Your task to perform on an android device: Is it going to rain tomorrow? Image 0: 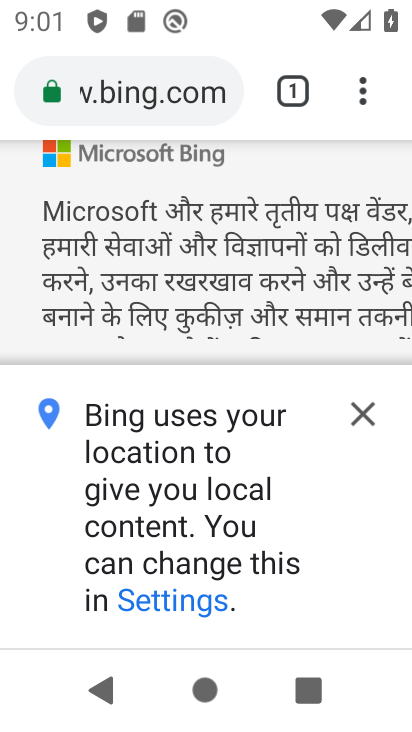
Step 0: press home button
Your task to perform on an android device: Is it going to rain tomorrow? Image 1: 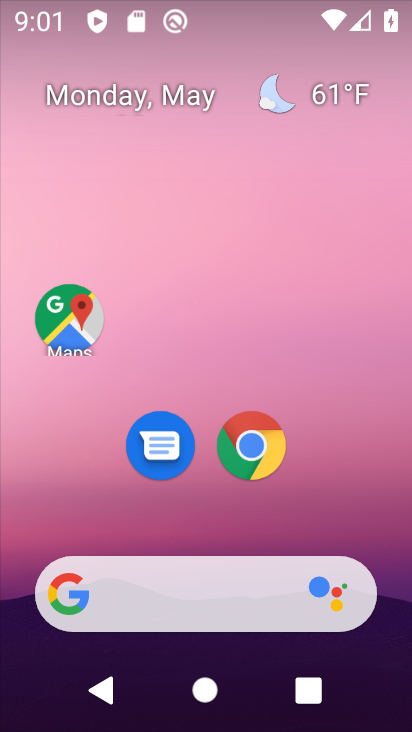
Step 1: click (190, 610)
Your task to perform on an android device: Is it going to rain tomorrow? Image 2: 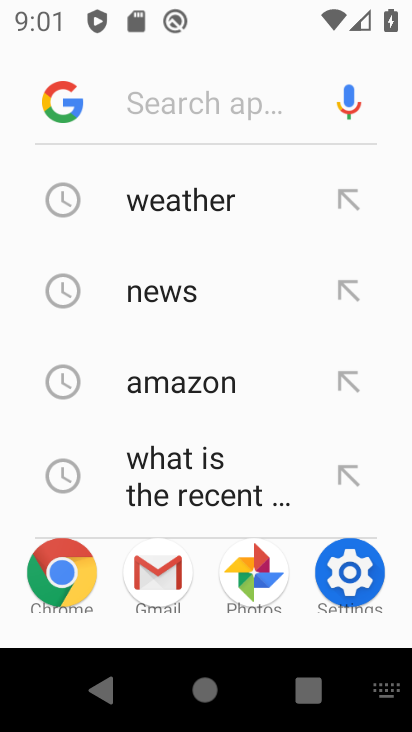
Step 2: click (204, 206)
Your task to perform on an android device: Is it going to rain tomorrow? Image 3: 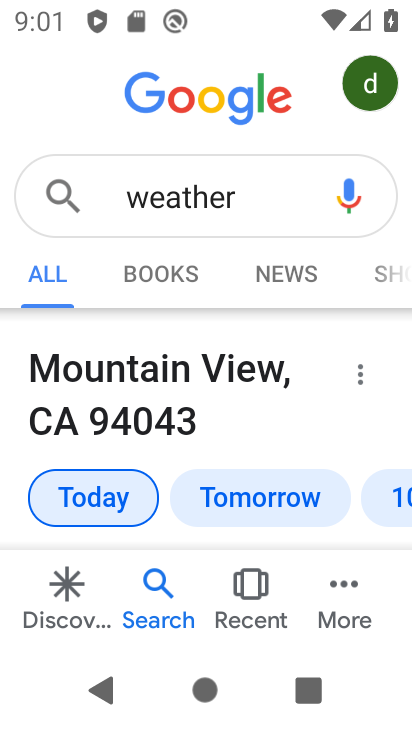
Step 3: click (262, 500)
Your task to perform on an android device: Is it going to rain tomorrow? Image 4: 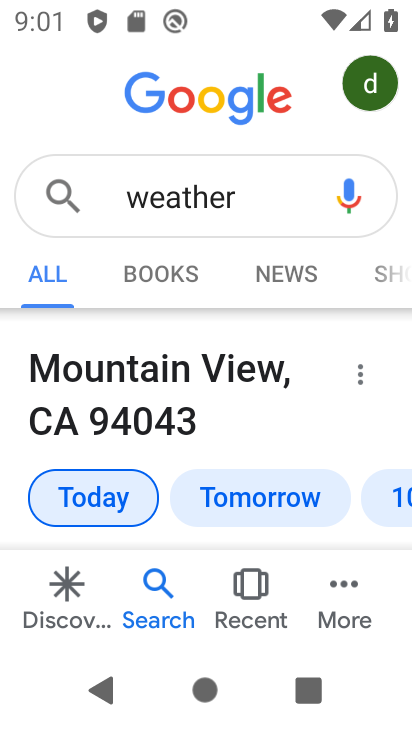
Step 4: click (276, 503)
Your task to perform on an android device: Is it going to rain tomorrow? Image 5: 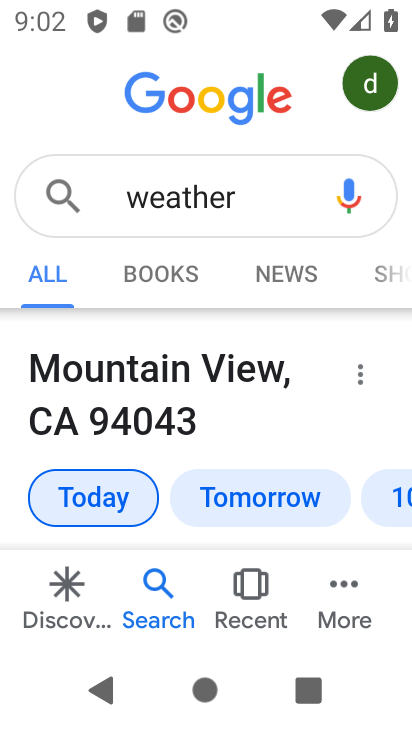
Step 5: click (297, 494)
Your task to perform on an android device: Is it going to rain tomorrow? Image 6: 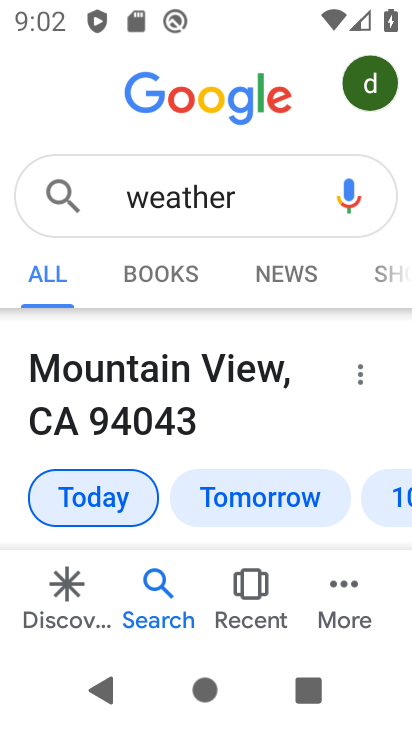
Step 6: click (297, 494)
Your task to perform on an android device: Is it going to rain tomorrow? Image 7: 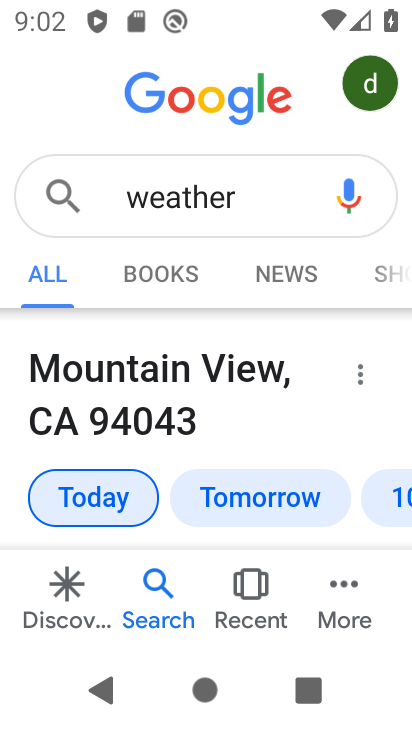
Step 7: task complete